Your task to perform on an android device: Open Maps and search for coffee Image 0: 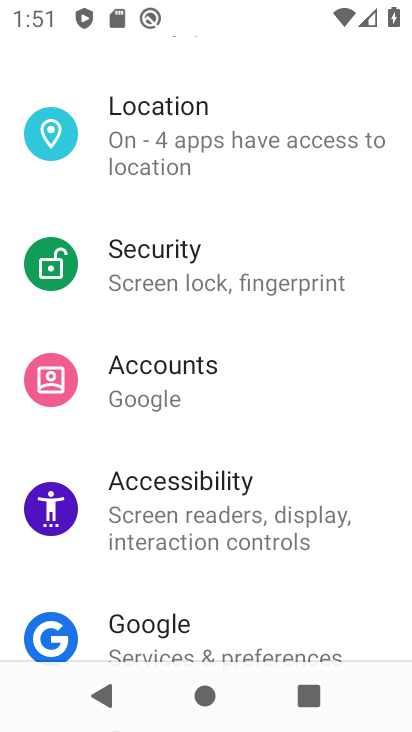
Step 0: press home button
Your task to perform on an android device: Open Maps and search for coffee Image 1: 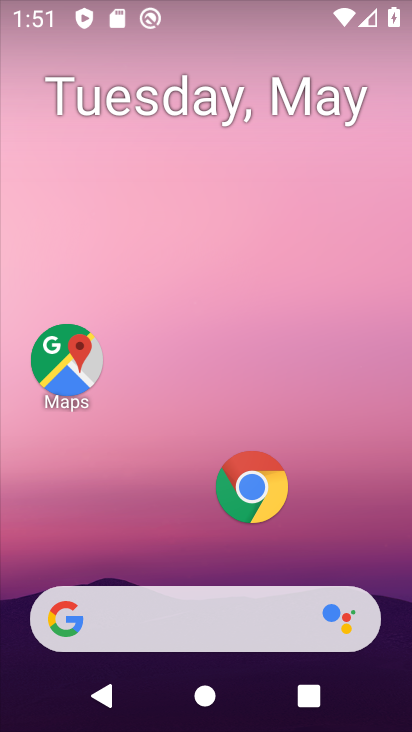
Step 1: drag from (194, 562) to (156, 99)
Your task to perform on an android device: Open Maps and search for coffee Image 2: 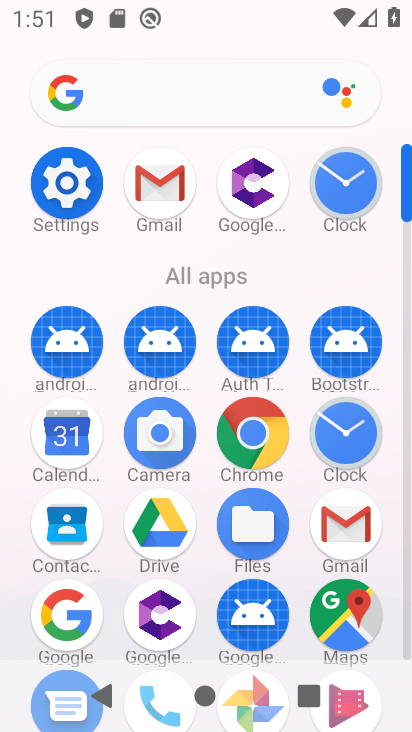
Step 2: click (350, 626)
Your task to perform on an android device: Open Maps and search for coffee Image 3: 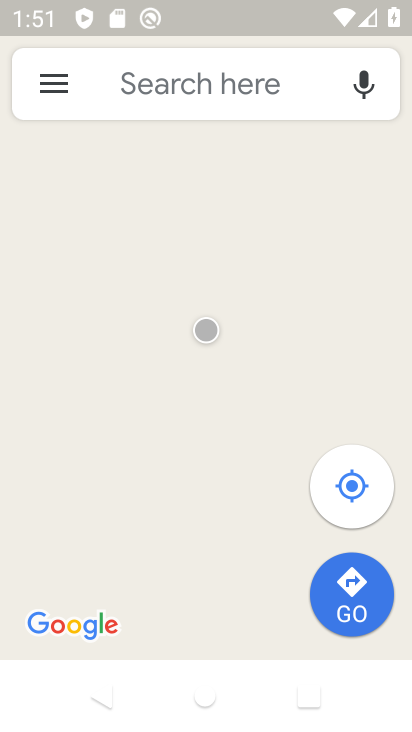
Step 3: click (184, 99)
Your task to perform on an android device: Open Maps and search for coffee Image 4: 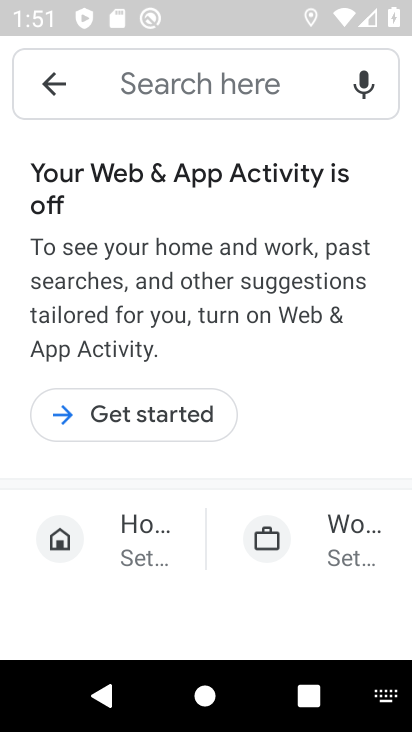
Step 4: click (61, 90)
Your task to perform on an android device: Open Maps and search for coffee Image 5: 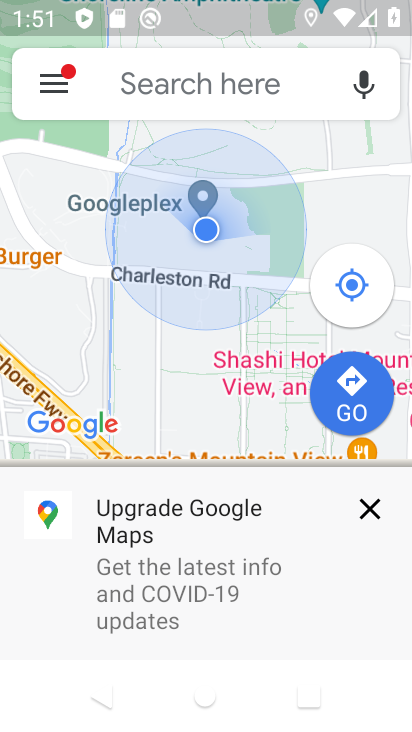
Step 5: click (191, 91)
Your task to perform on an android device: Open Maps and search for coffee Image 6: 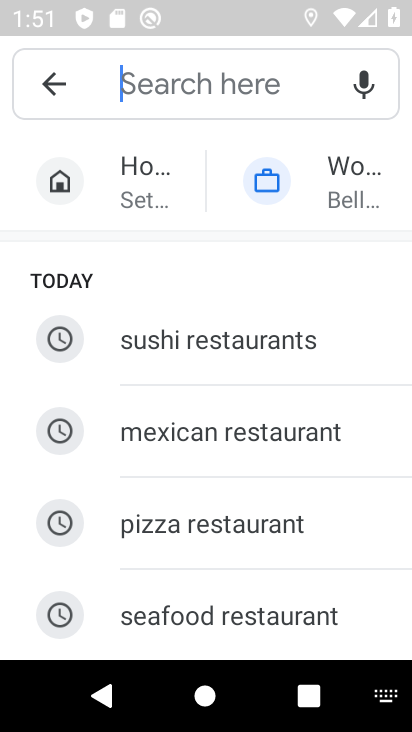
Step 6: drag from (234, 579) to (207, 349)
Your task to perform on an android device: Open Maps and search for coffee Image 7: 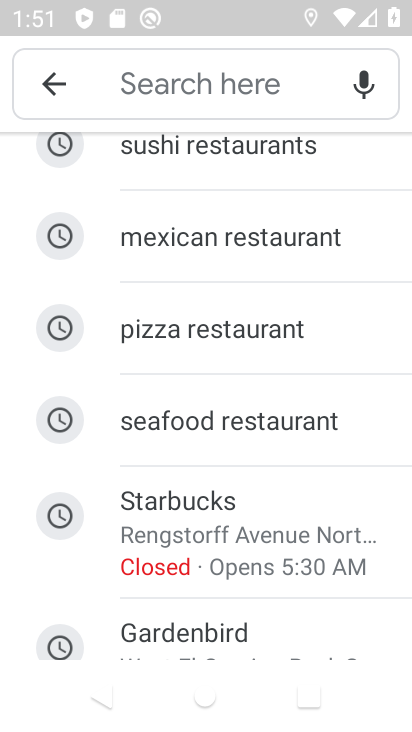
Step 7: click (207, 86)
Your task to perform on an android device: Open Maps and search for coffee Image 8: 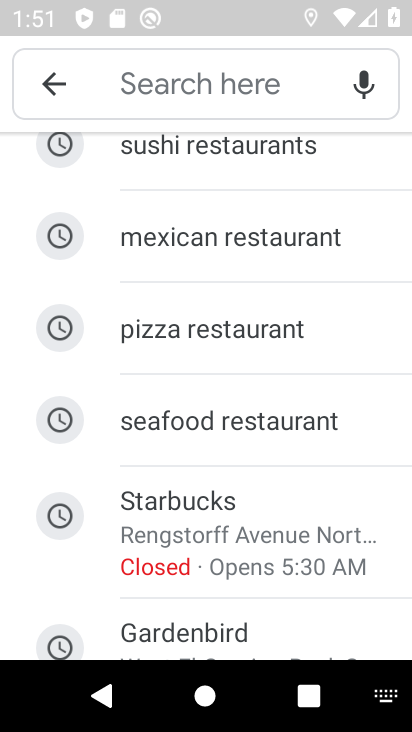
Step 8: type "coffee"
Your task to perform on an android device: Open Maps and search for coffee Image 9: 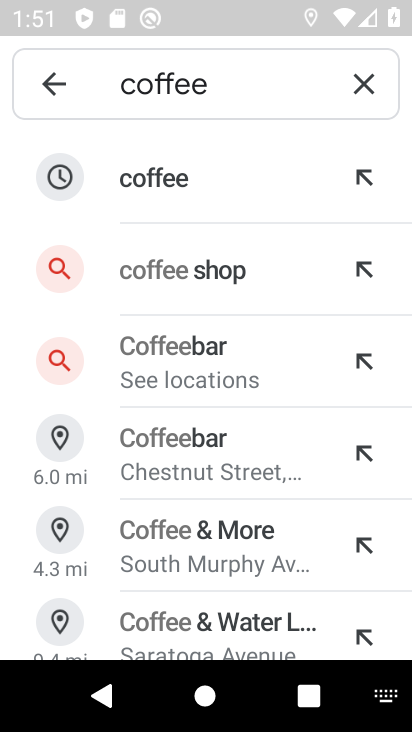
Step 9: click (180, 182)
Your task to perform on an android device: Open Maps and search for coffee Image 10: 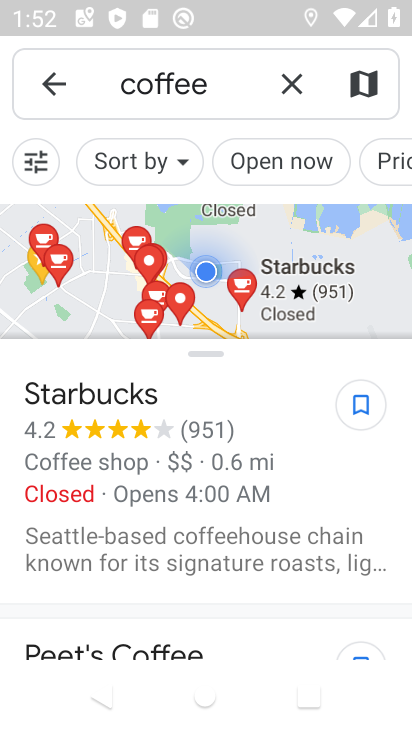
Step 10: task complete